Your task to perform on an android device: turn on javascript in the chrome app Image 0: 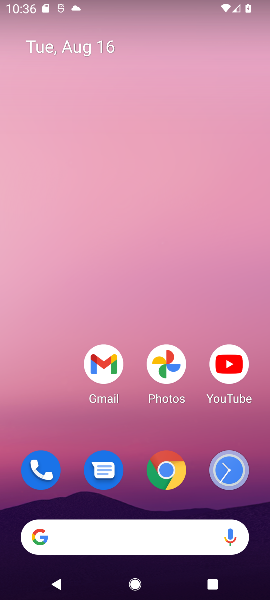
Step 0: click (175, 475)
Your task to perform on an android device: turn on javascript in the chrome app Image 1: 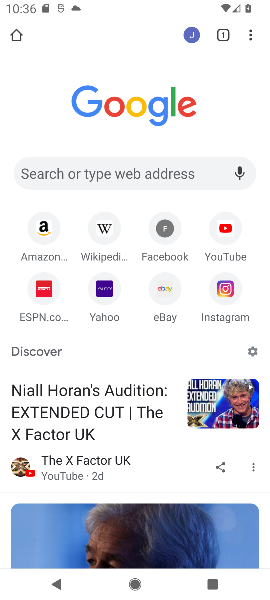
Step 1: click (256, 34)
Your task to perform on an android device: turn on javascript in the chrome app Image 2: 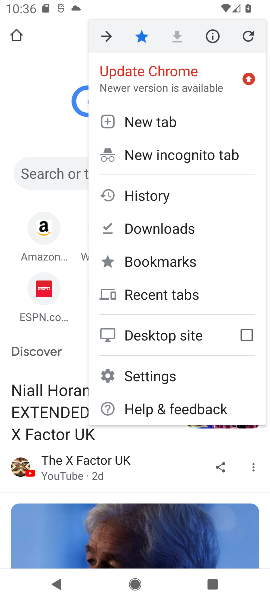
Step 2: click (166, 375)
Your task to perform on an android device: turn on javascript in the chrome app Image 3: 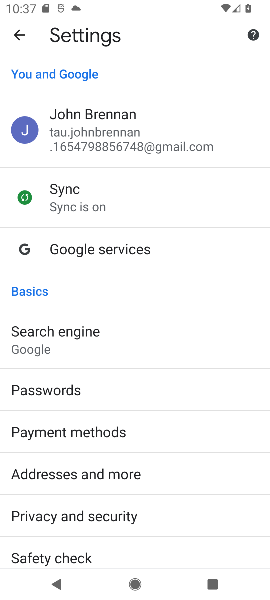
Step 3: drag from (128, 515) to (138, 132)
Your task to perform on an android device: turn on javascript in the chrome app Image 4: 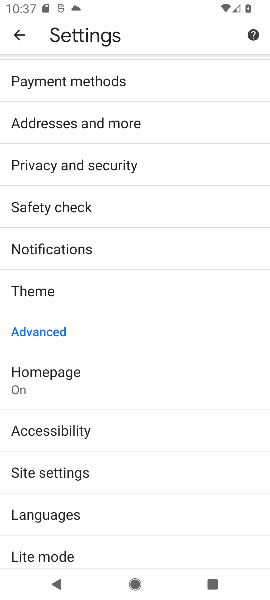
Step 4: click (75, 465)
Your task to perform on an android device: turn on javascript in the chrome app Image 5: 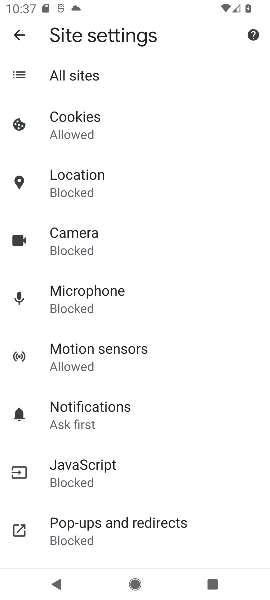
Step 5: click (100, 472)
Your task to perform on an android device: turn on javascript in the chrome app Image 6: 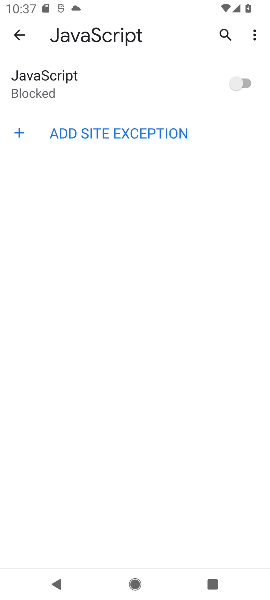
Step 6: click (234, 82)
Your task to perform on an android device: turn on javascript in the chrome app Image 7: 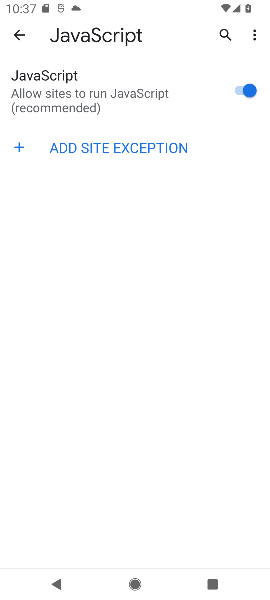
Step 7: task complete